Your task to perform on an android device: Open calendar and show me the third week of next month Image 0: 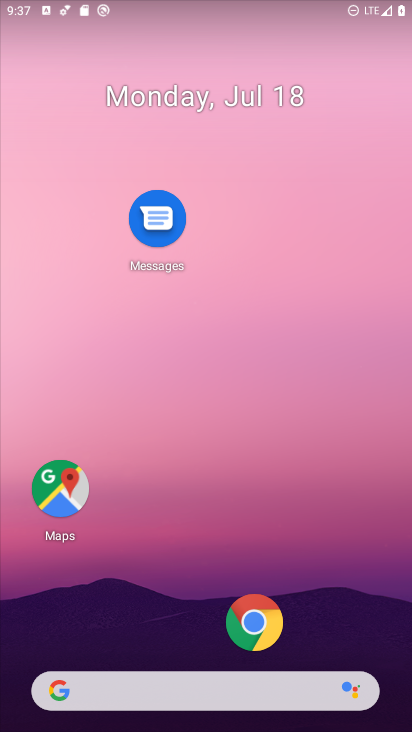
Step 0: drag from (301, 685) to (301, 132)
Your task to perform on an android device: Open calendar and show me the third week of next month Image 1: 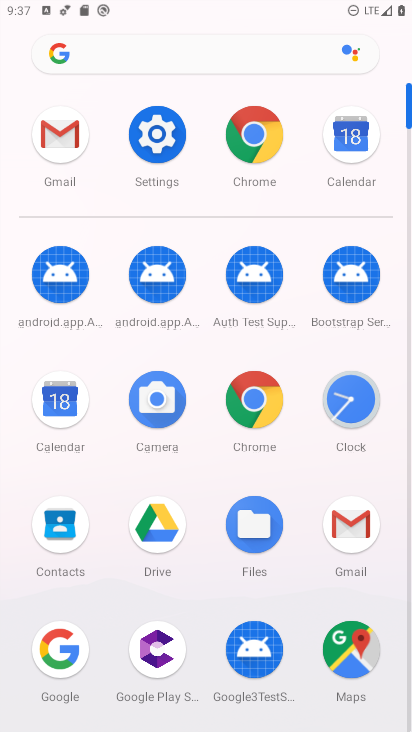
Step 1: click (59, 405)
Your task to perform on an android device: Open calendar and show me the third week of next month Image 2: 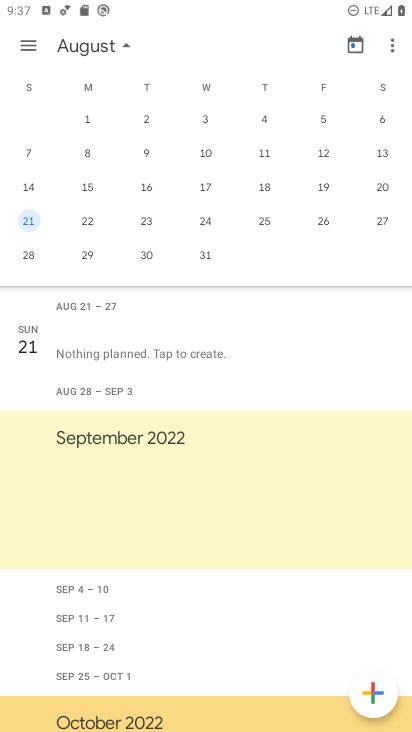
Step 2: click (33, 225)
Your task to perform on an android device: Open calendar and show me the third week of next month Image 3: 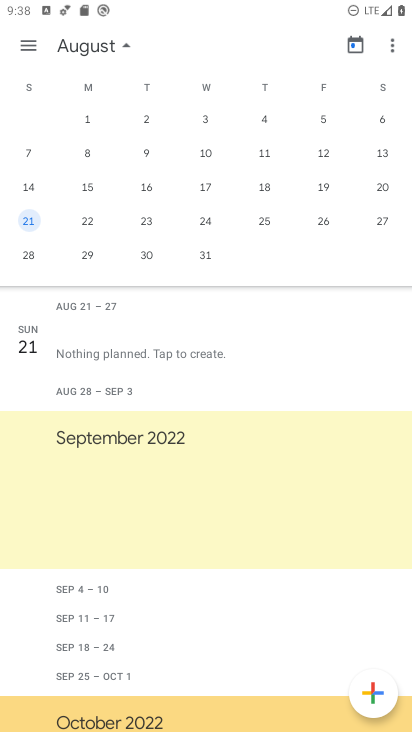
Step 3: task complete